Your task to perform on an android device: Open ESPN.com Image 0: 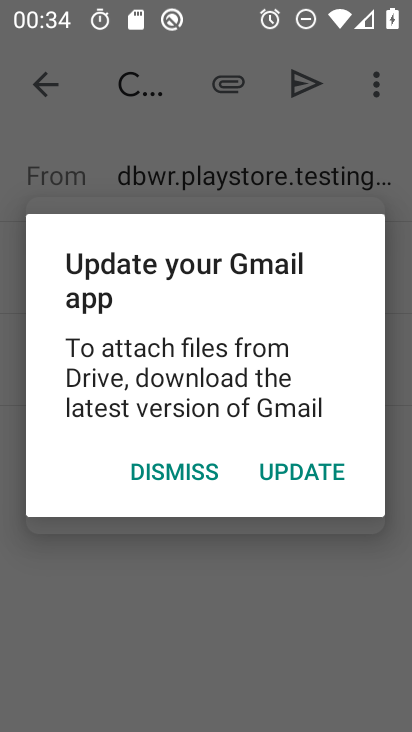
Step 0: press home button
Your task to perform on an android device: Open ESPN.com Image 1: 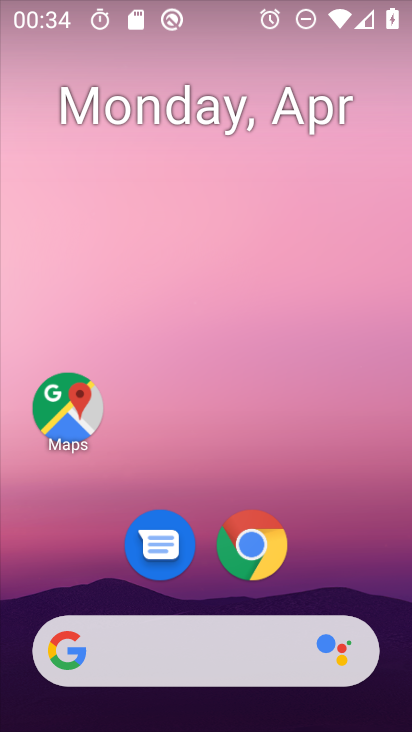
Step 1: click (254, 536)
Your task to perform on an android device: Open ESPN.com Image 2: 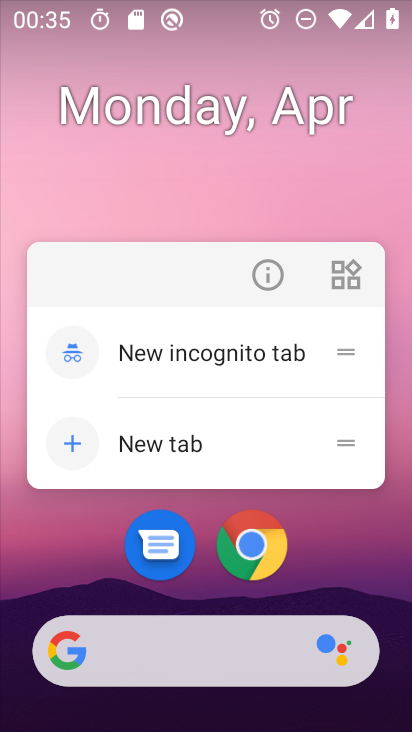
Step 2: click (254, 536)
Your task to perform on an android device: Open ESPN.com Image 3: 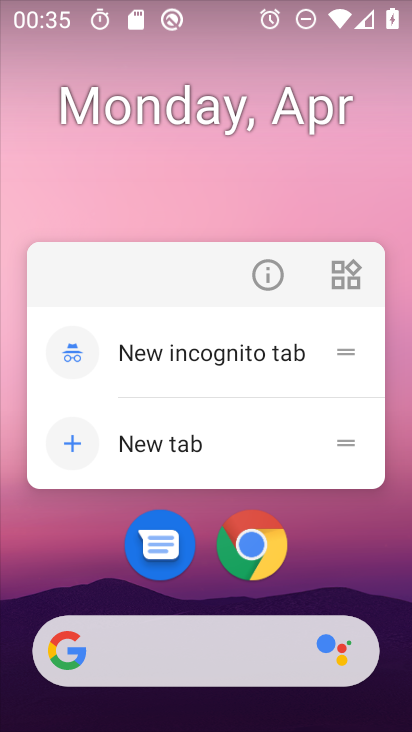
Step 3: drag from (335, 555) to (309, 149)
Your task to perform on an android device: Open ESPN.com Image 4: 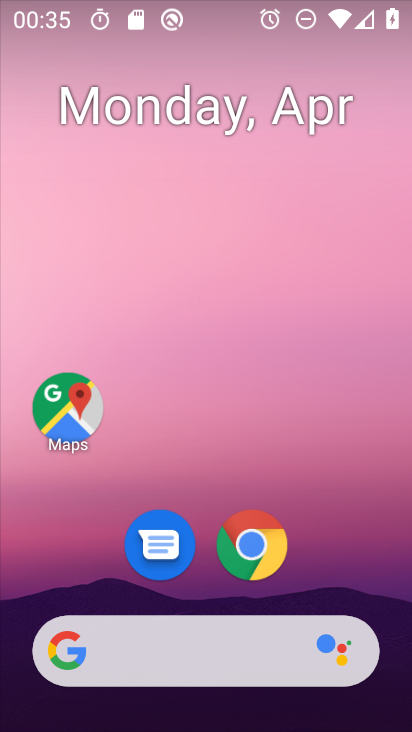
Step 4: drag from (306, 559) to (336, 225)
Your task to perform on an android device: Open ESPN.com Image 5: 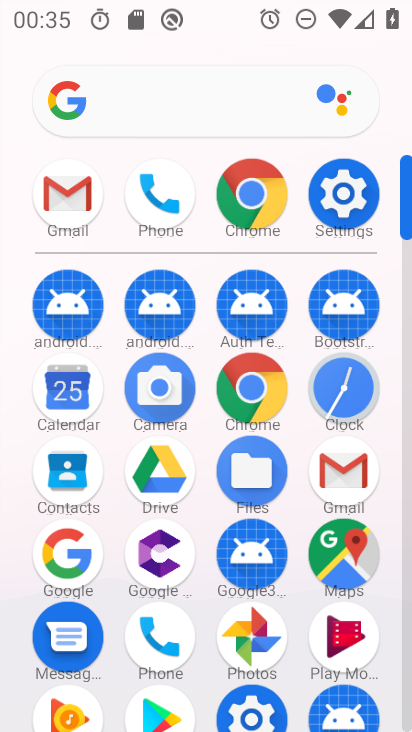
Step 5: click (235, 383)
Your task to perform on an android device: Open ESPN.com Image 6: 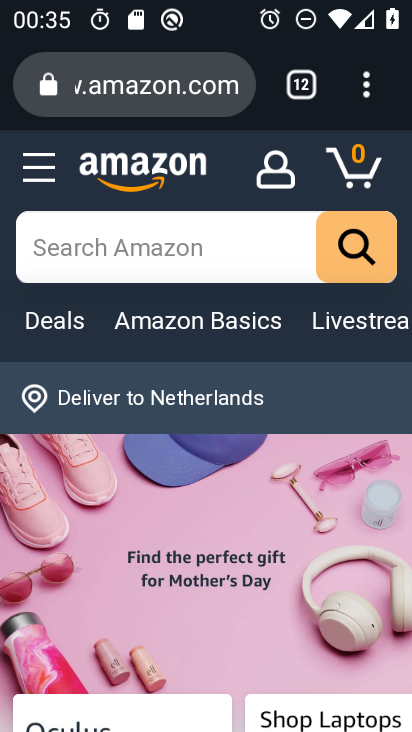
Step 6: click (353, 80)
Your task to perform on an android device: Open ESPN.com Image 7: 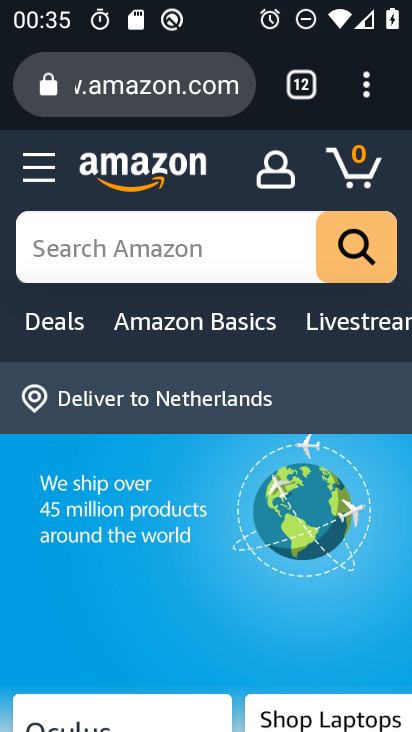
Step 7: click (353, 80)
Your task to perform on an android device: Open ESPN.com Image 8: 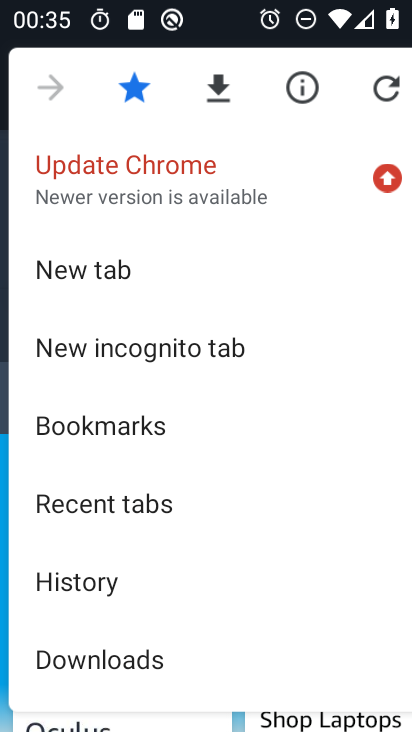
Step 8: click (161, 255)
Your task to perform on an android device: Open ESPN.com Image 9: 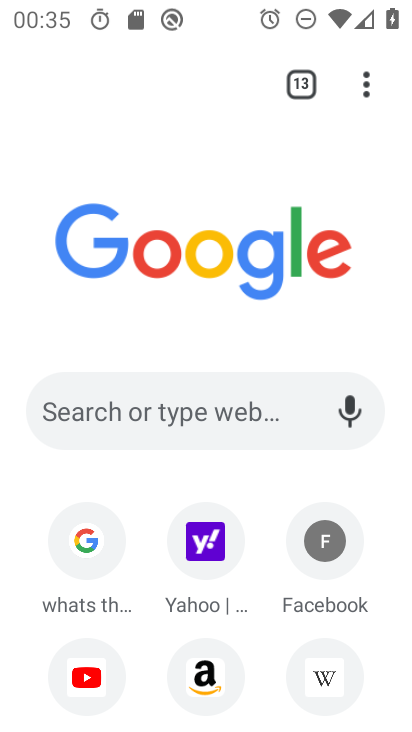
Step 9: click (161, 255)
Your task to perform on an android device: Open ESPN.com Image 10: 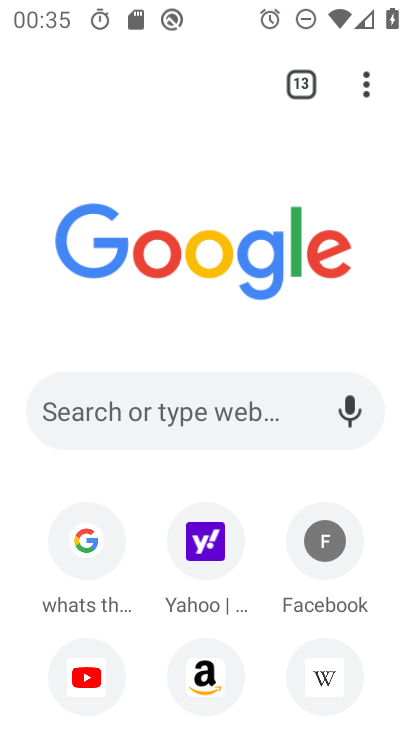
Step 10: click (192, 418)
Your task to perform on an android device: Open ESPN.com Image 11: 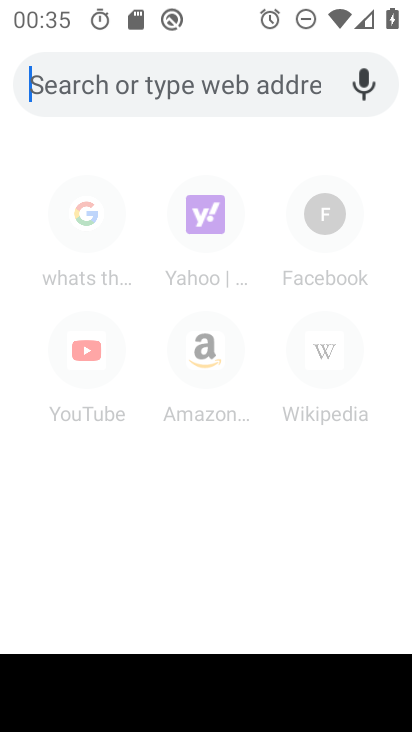
Step 11: type "ESPN.com"
Your task to perform on an android device: Open ESPN.com Image 12: 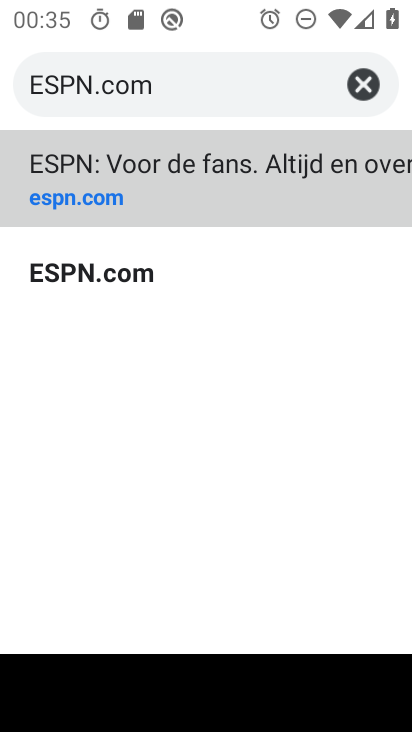
Step 12: drag from (115, 241) to (118, 287)
Your task to perform on an android device: Open ESPN.com Image 13: 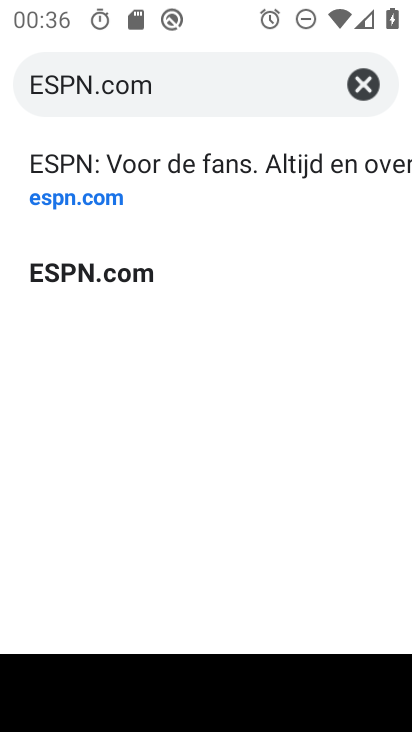
Step 13: click (118, 286)
Your task to perform on an android device: Open ESPN.com Image 14: 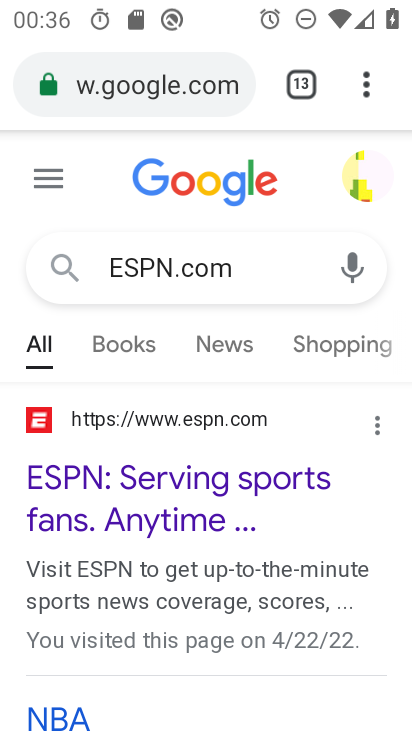
Step 14: task complete